Your task to perform on an android device: Show the shopping cart on ebay. Search for "lenovo thinkpad" on ebay, select the first entry, and add it to the cart. Image 0: 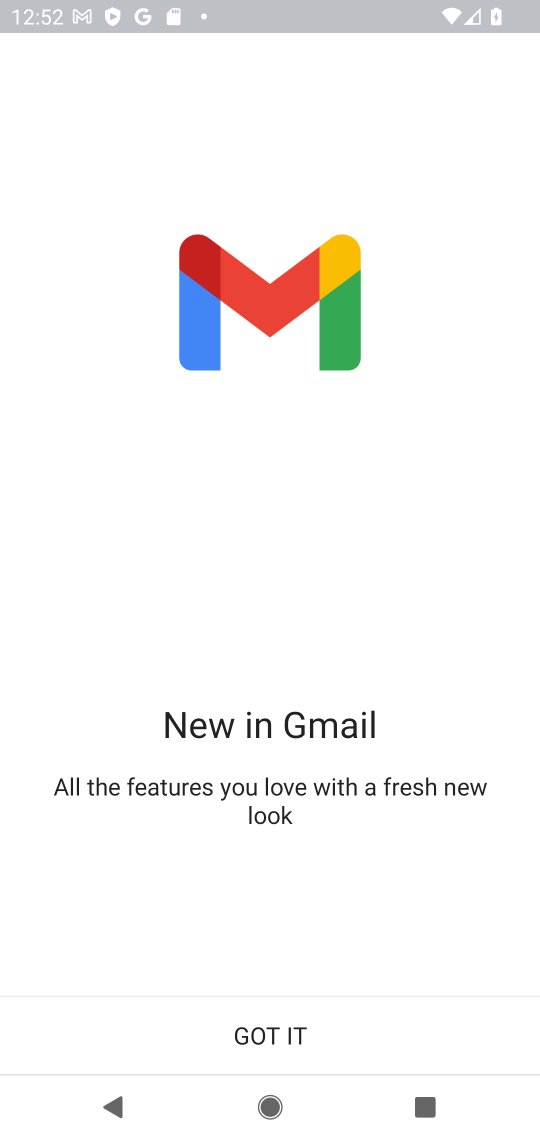
Step 0: task complete